Your task to perform on an android device: Open my contact list Image 0: 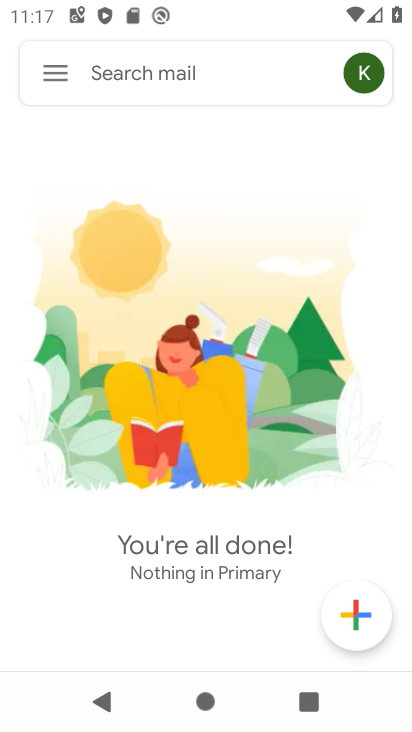
Step 0: press home button
Your task to perform on an android device: Open my contact list Image 1: 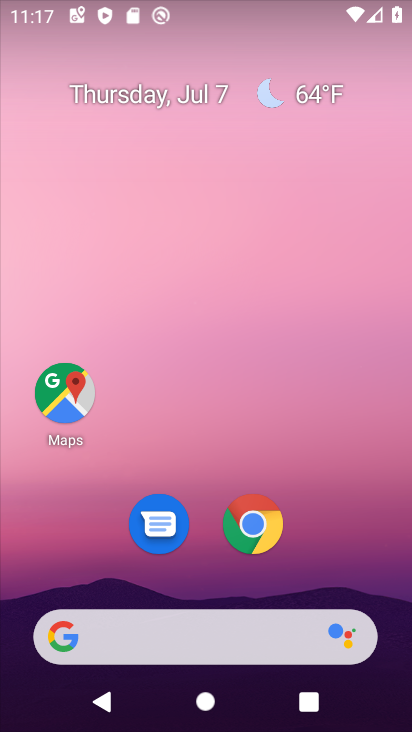
Step 1: drag from (303, 561) to (389, 11)
Your task to perform on an android device: Open my contact list Image 2: 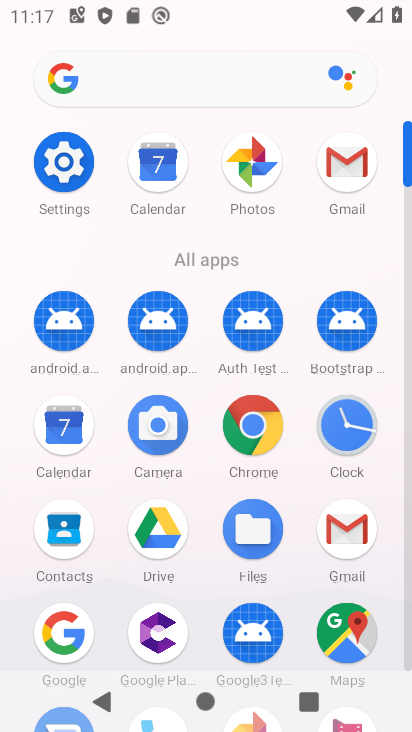
Step 2: click (66, 526)
Your task to perform on an android device: Open my contact list Image 3: 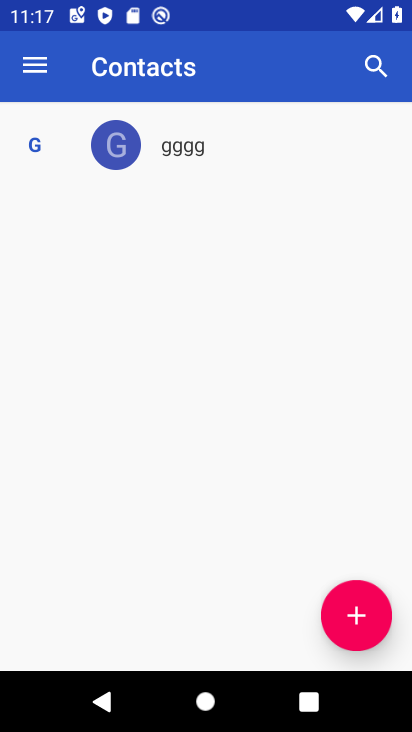
Step 3: task complete